Your task to perform on an android device: Go to Yahoo.com Image 0: 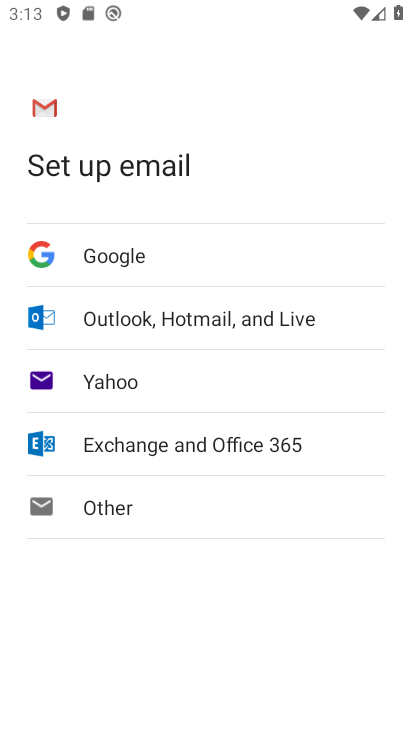
Step 0: press home button
Your task to perform on an android device: Go to Yahoo.com Image 1: 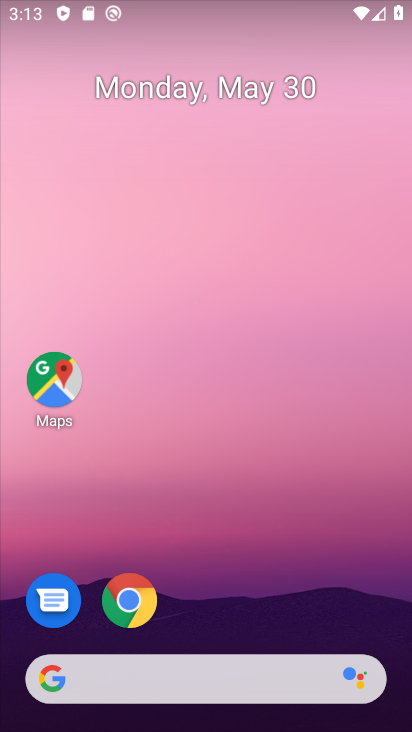
Step 1: click (135, 589)
Your task to perform on an android device: Go to Yahoo.com Image 2: 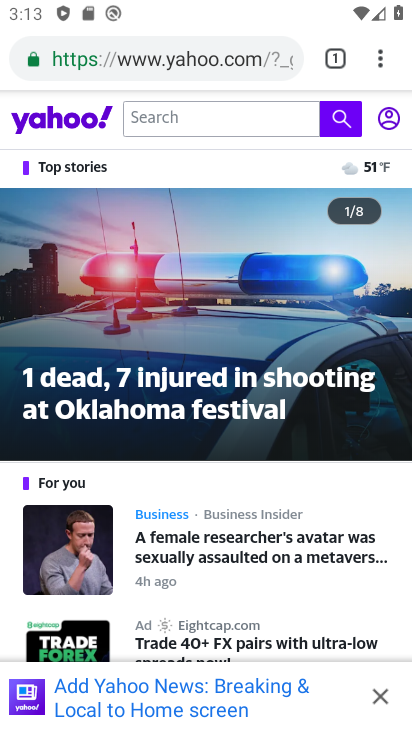
Step 2: task complete